Your task to perform on an android device: open app "Fetch Rewards" (install if not already installed) and go to login screen Image 0: 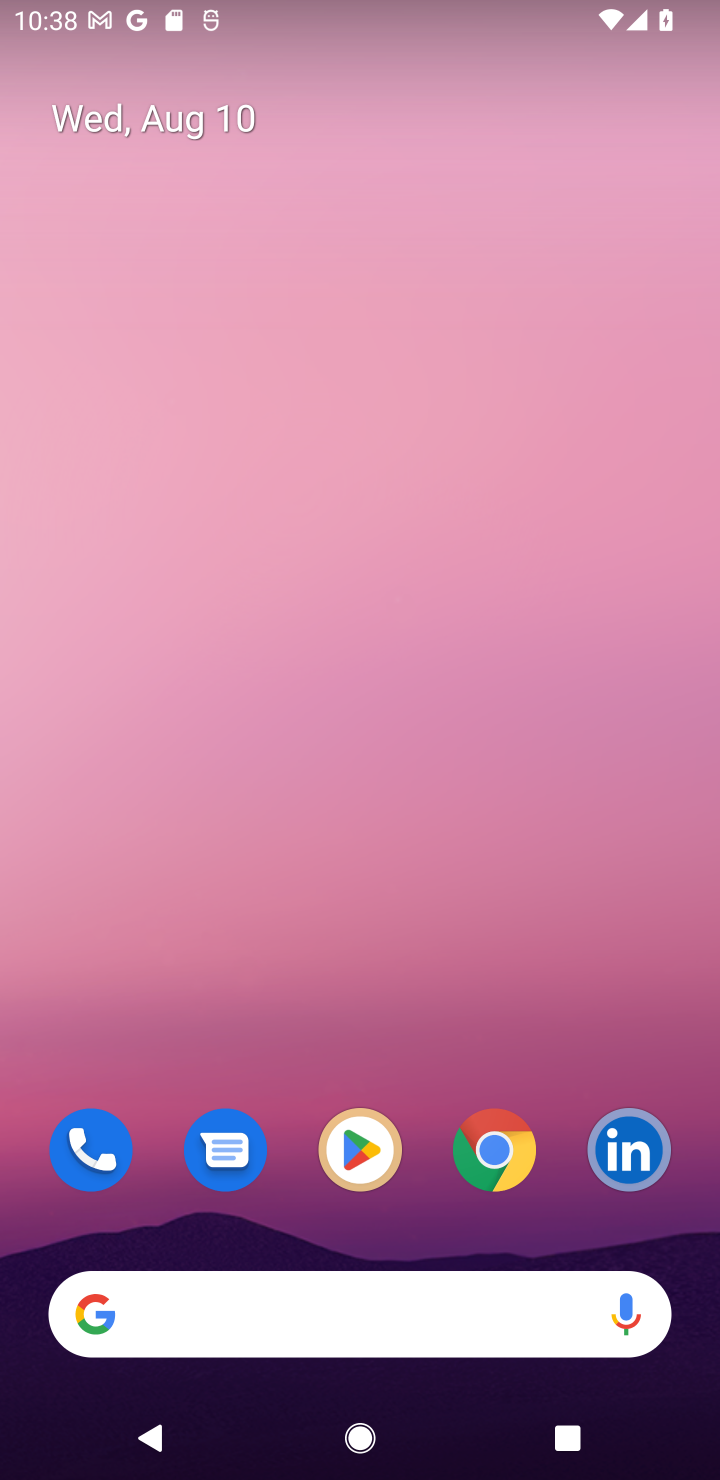
Step 0: click (395, 1167)
Your task to perform on an android device: open app "Fetch Rewards" (install if not already installed) and go to login screen Image 1: 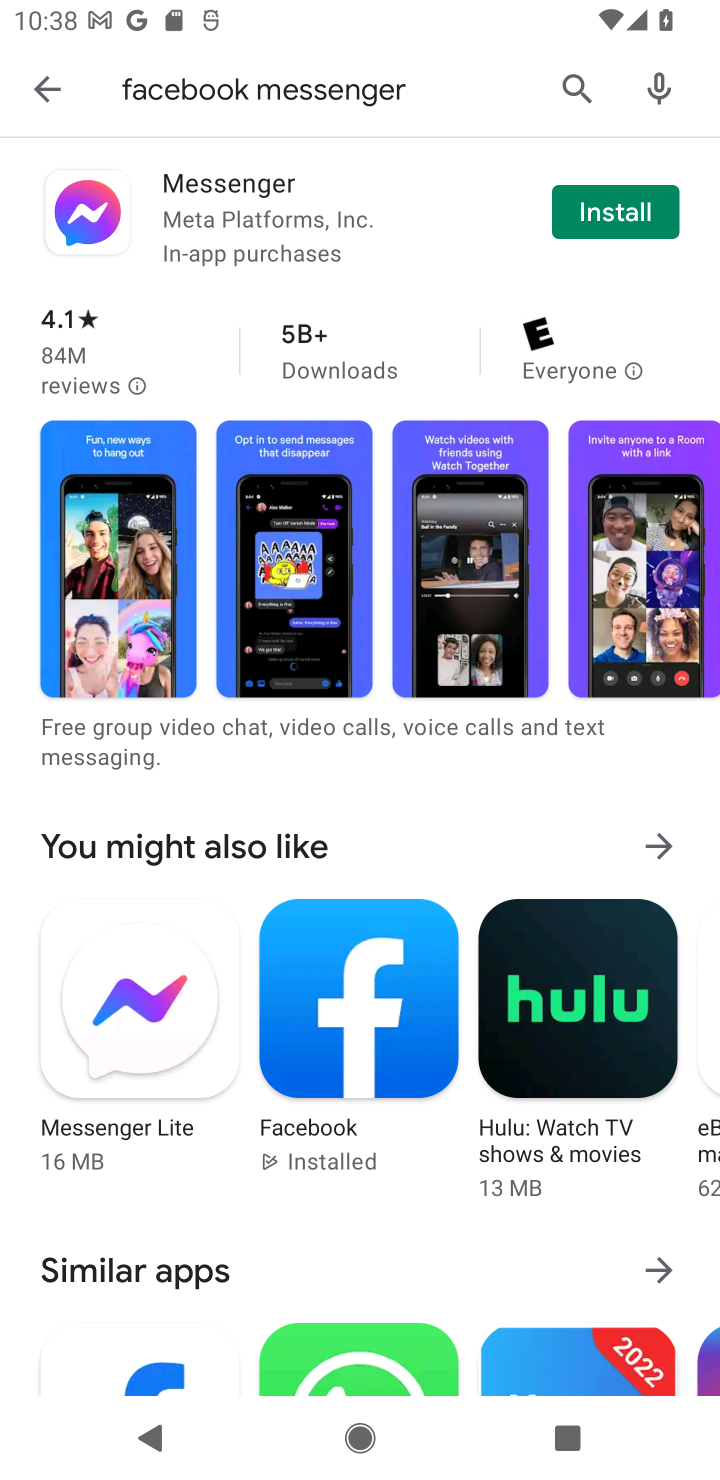
Step 1: click (585, 81)
Your task to perform on an android device: open app "Fetch Rewards" (install if not already installed) and go to login screen Image 2: 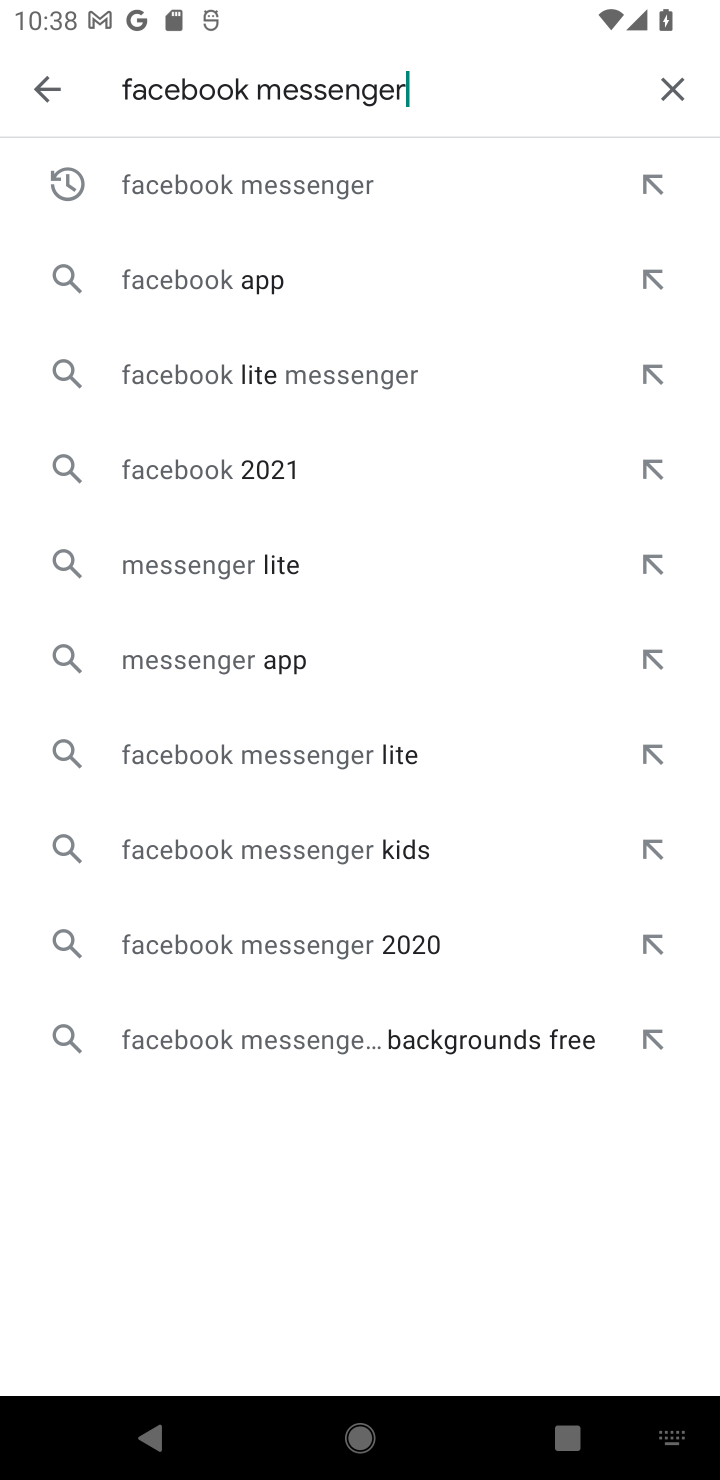
Step 2: click (656, 73)
Your task to perform on an android device: open app "Fetch Rewards" (install if not already installed) and go to login screen Image 3: 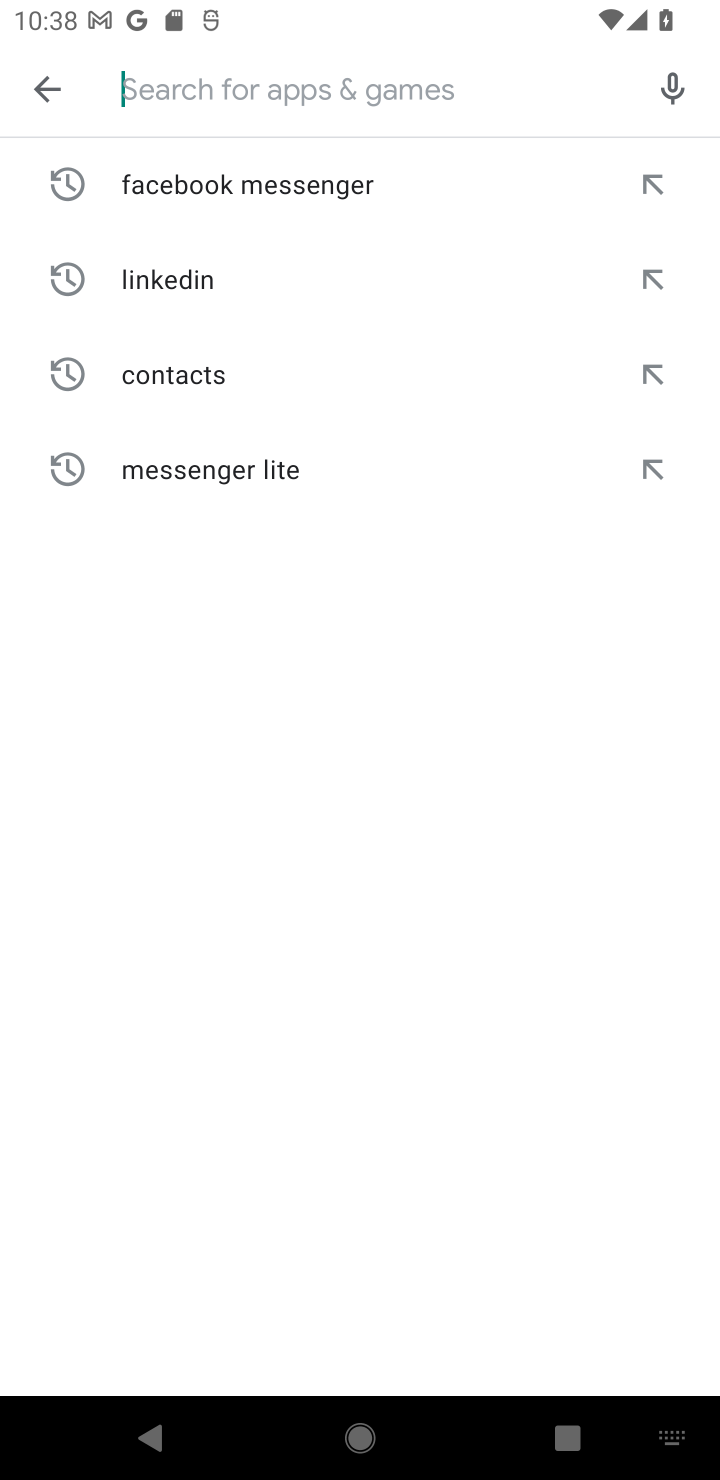
Step 3: click (663, 82)
Your task to perform on an android device: open app "Fetch Rewards" (install if not already installed) and go to login screen Image 4: 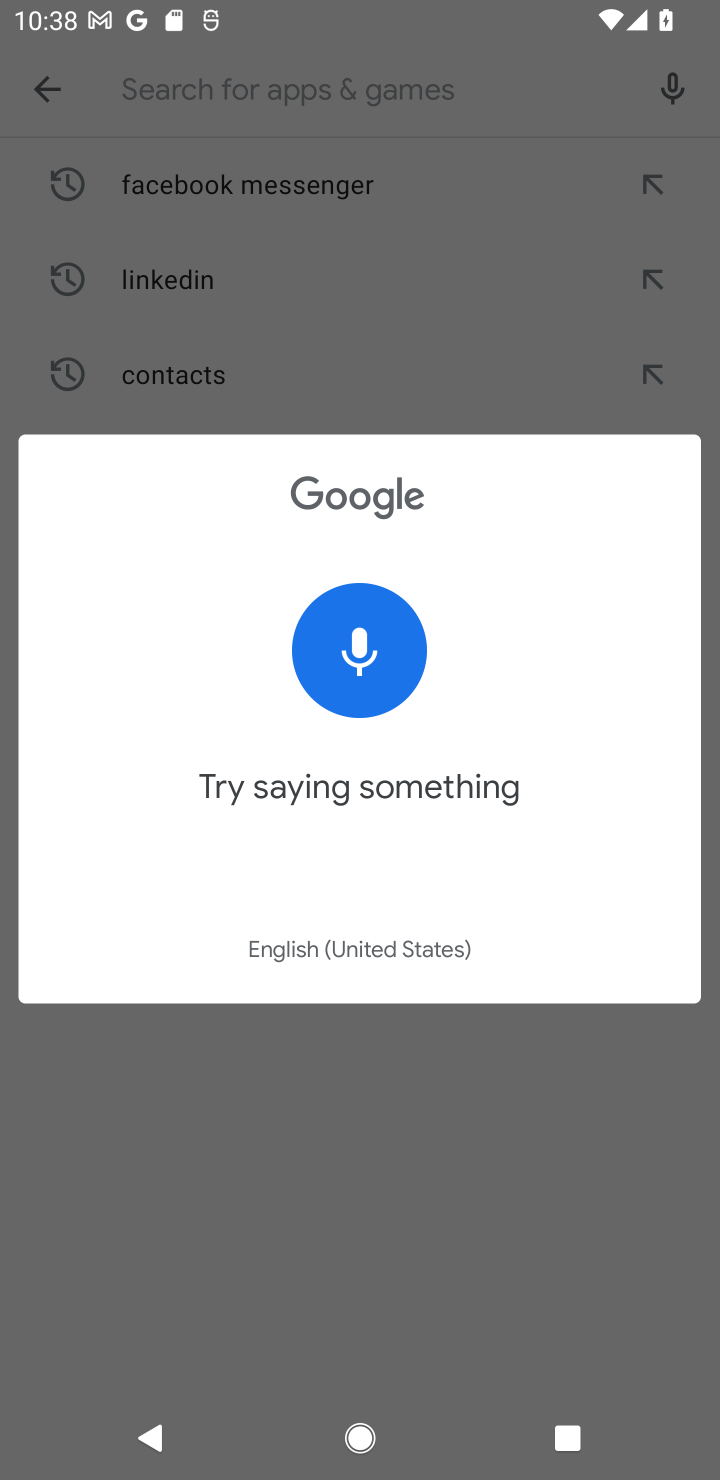
Step 4: click (473, 71)
Your task to perform on an android device: open app "Fetch Rewards" (install if not already installed) and go to login screen Image 5: 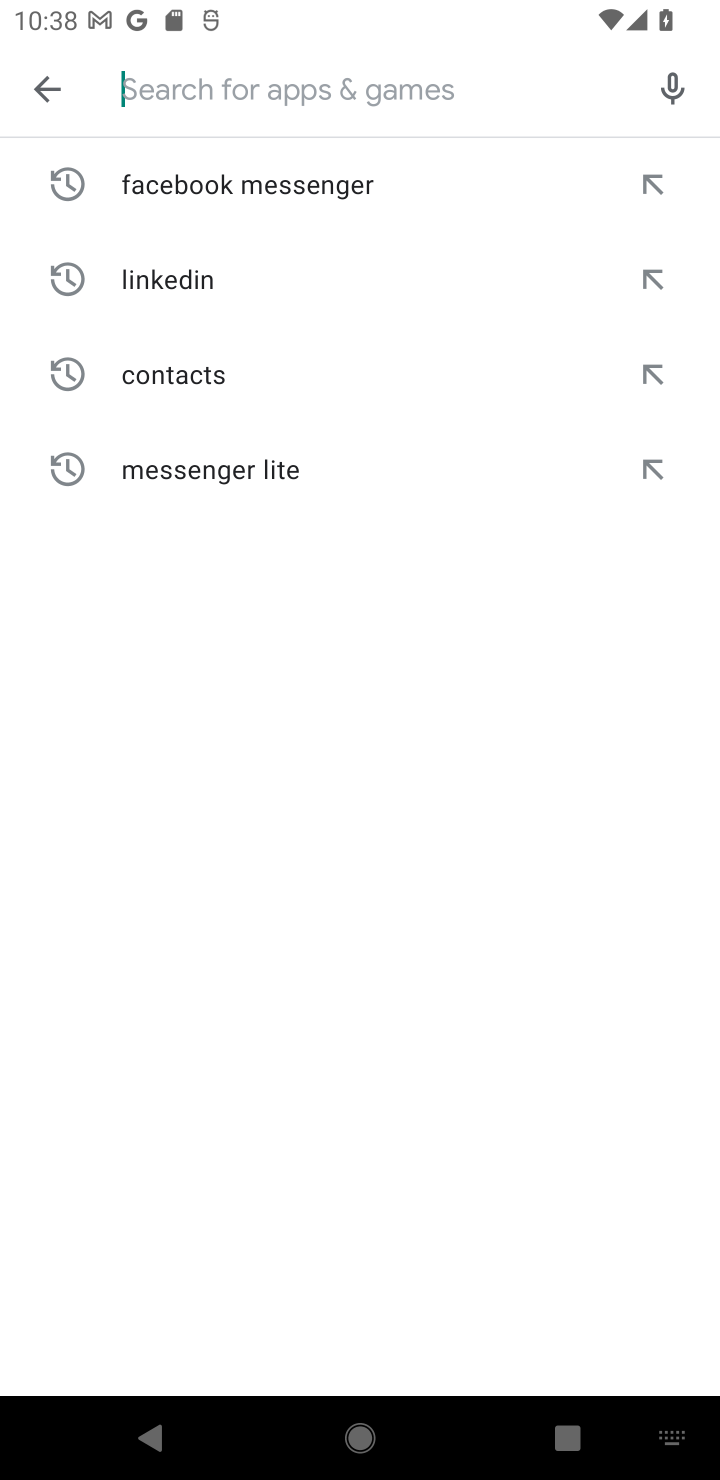
Step 5: click (420, 90)
Your task to perform on an android device: open app "Fetch Rewards" (install if not already installed) and go to login screen Image 6: 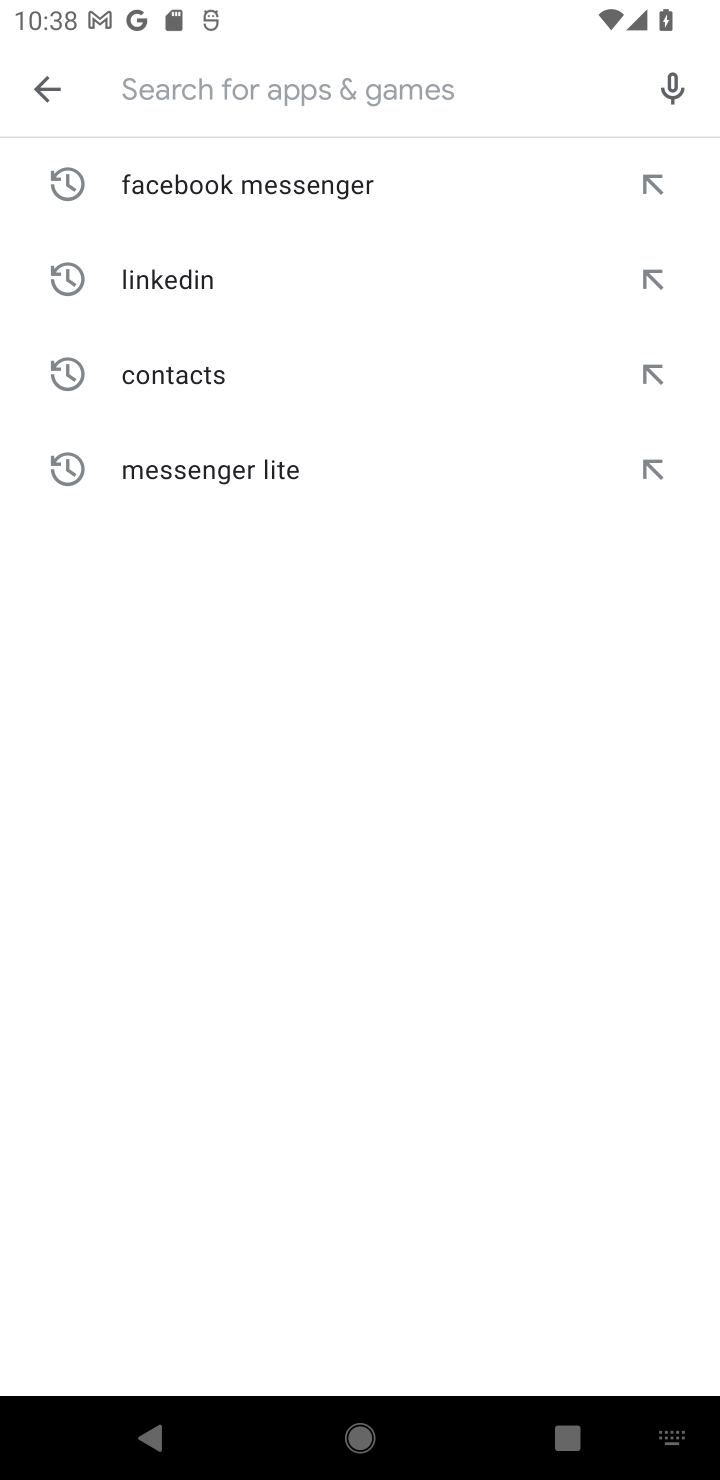
Step 6: type "Fetch Rewards"
Your task to perform on an android device: open app "Fetch Rewards" (install if not already installed) and go to login screen Image 7: 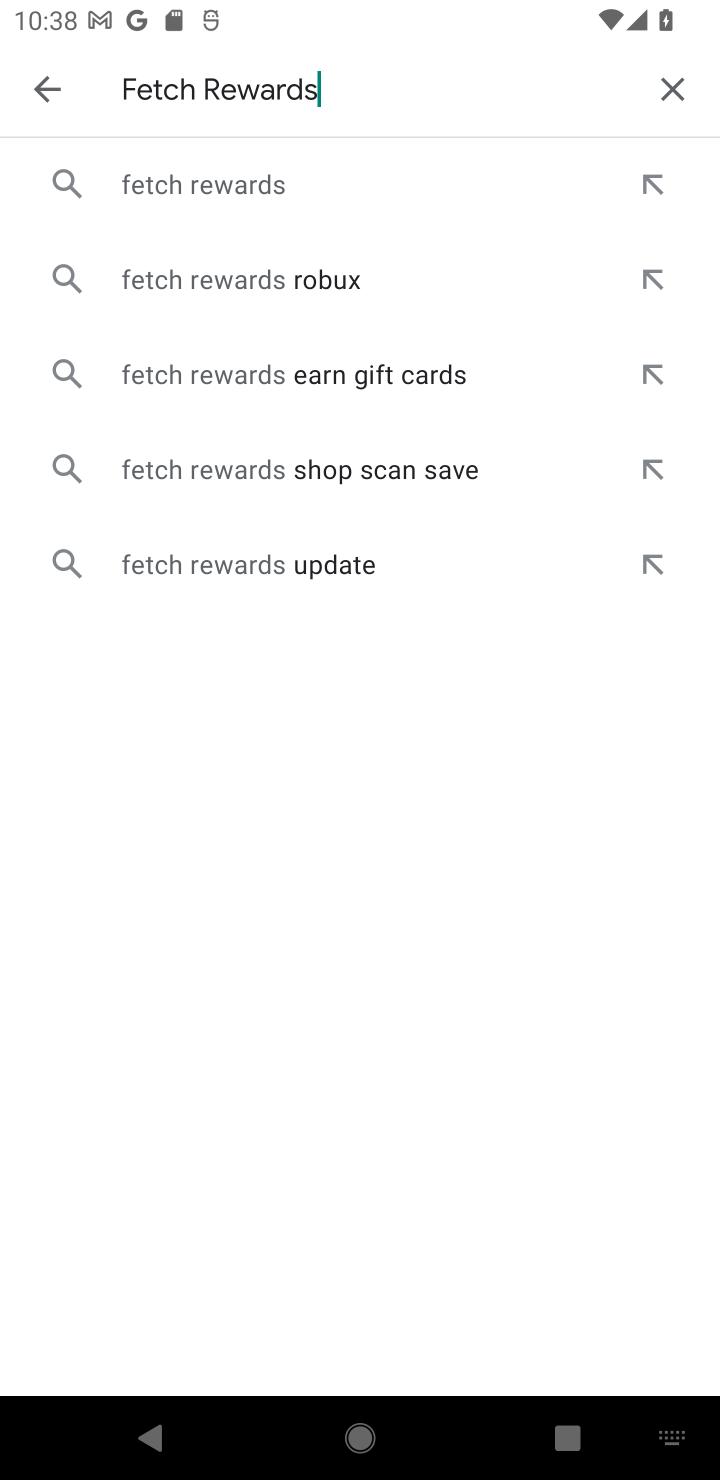
Step 7: click (258, 200)
Your task to perform on an android device: open app "Fetch Rewards" (install if not already installed) and go to login screen Image 8: 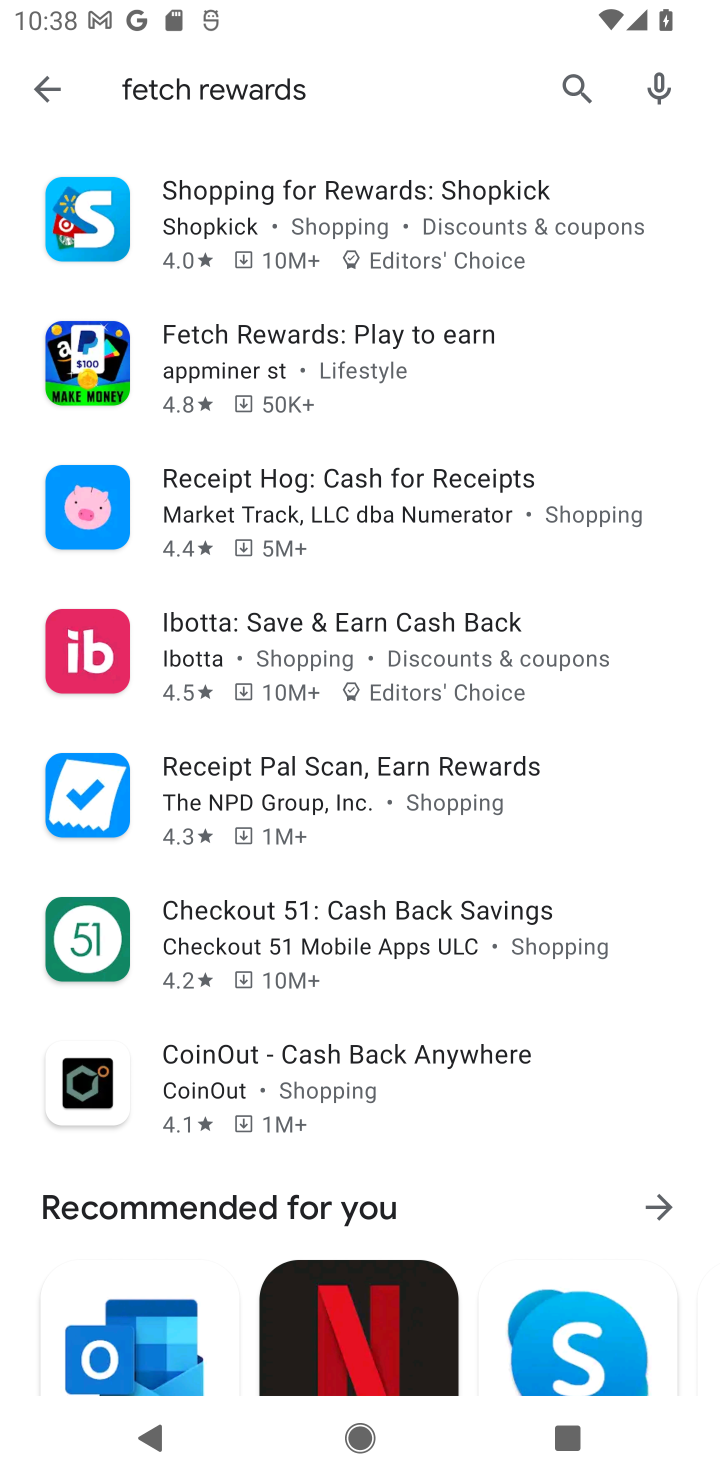
Step 8: task complete